Your task to perform on an android device: Go to sound settings Image 0: 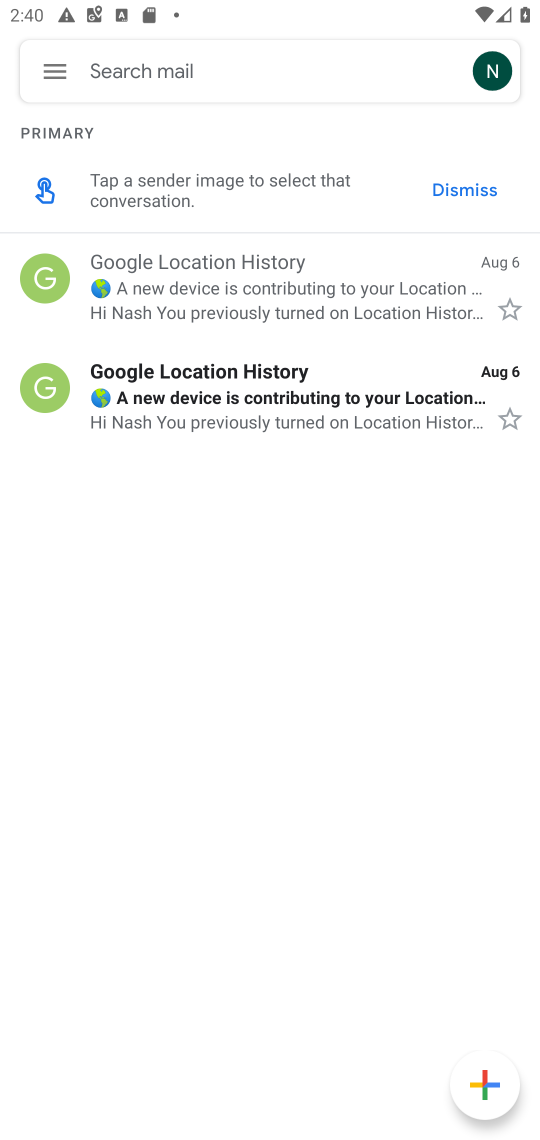
Step 0: press home button
Your task to perform on an android device: Go to sound settings Image 1: 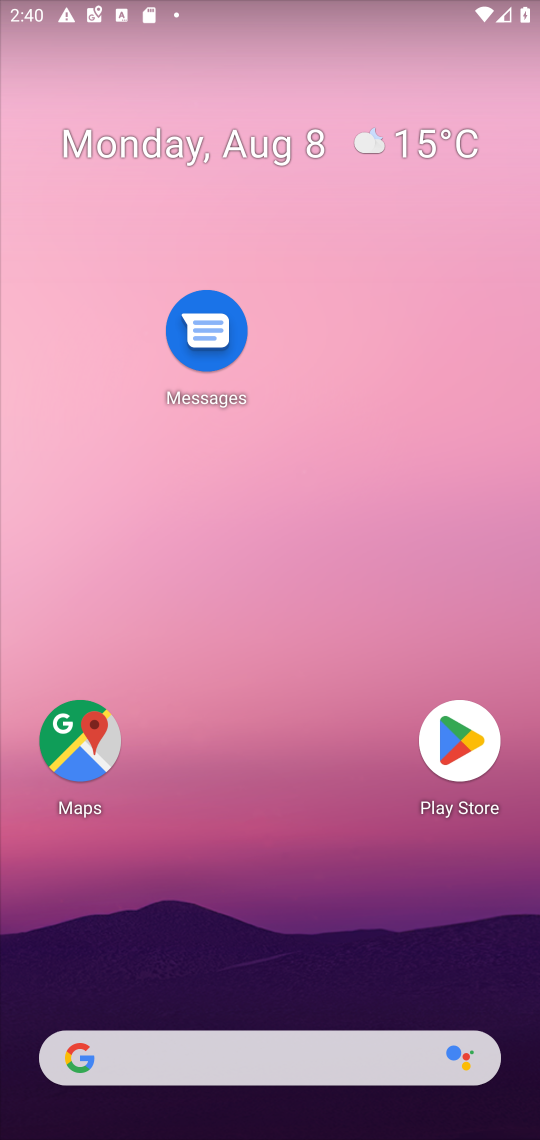
Step 1: drag from (309, 1044) to (314, 244)
Your task to perform on an android device: Go to sound settings Image 2: 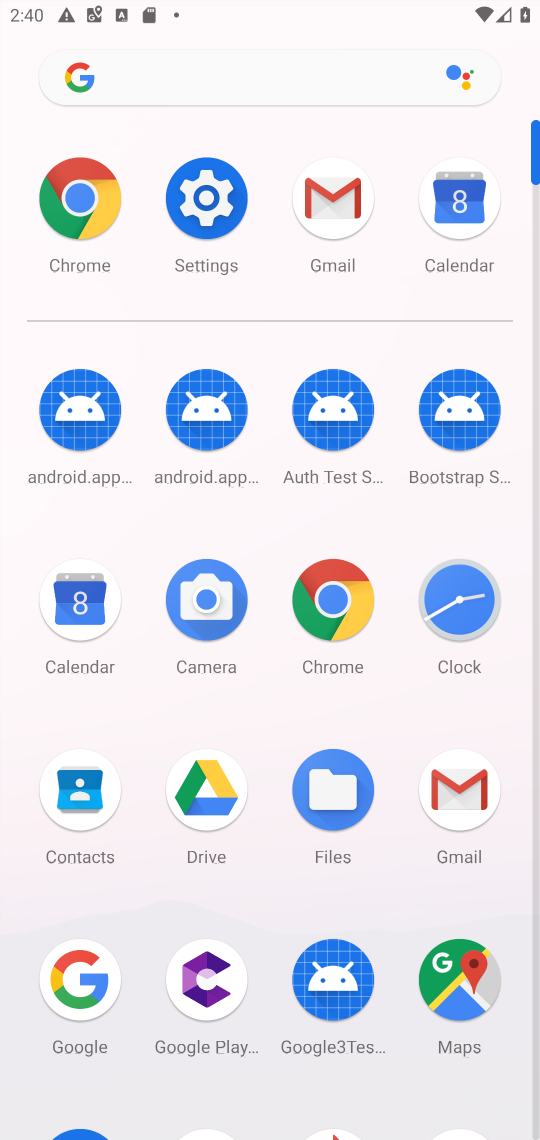
Step 2: click (225, 192)
Your task to perform on an android device: Go to sound settings Image 3: 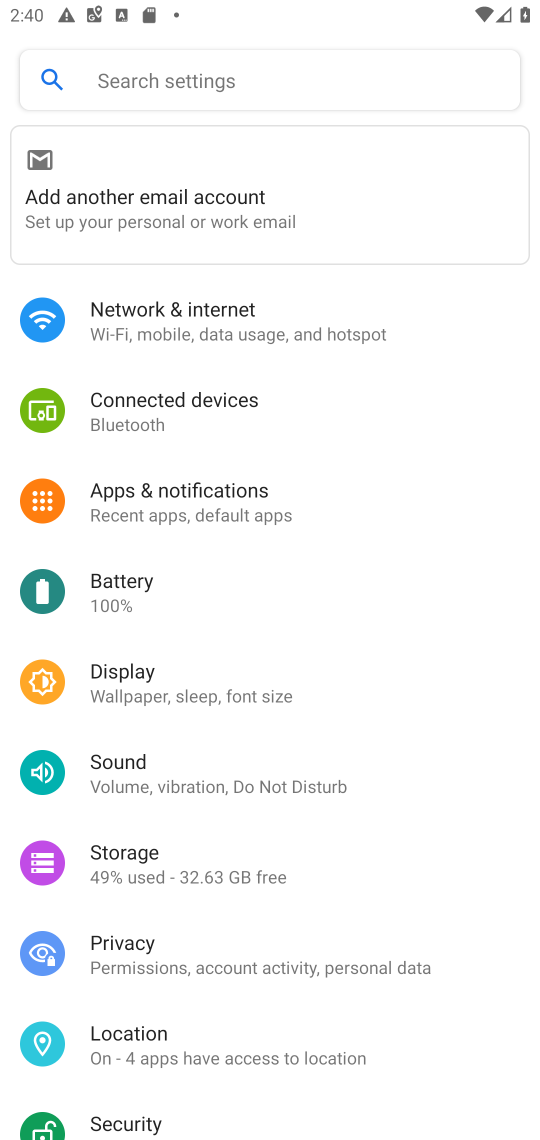
Step 3: click (141, 773)
Your task to perform on an android device: Go to sound settings Image 4: 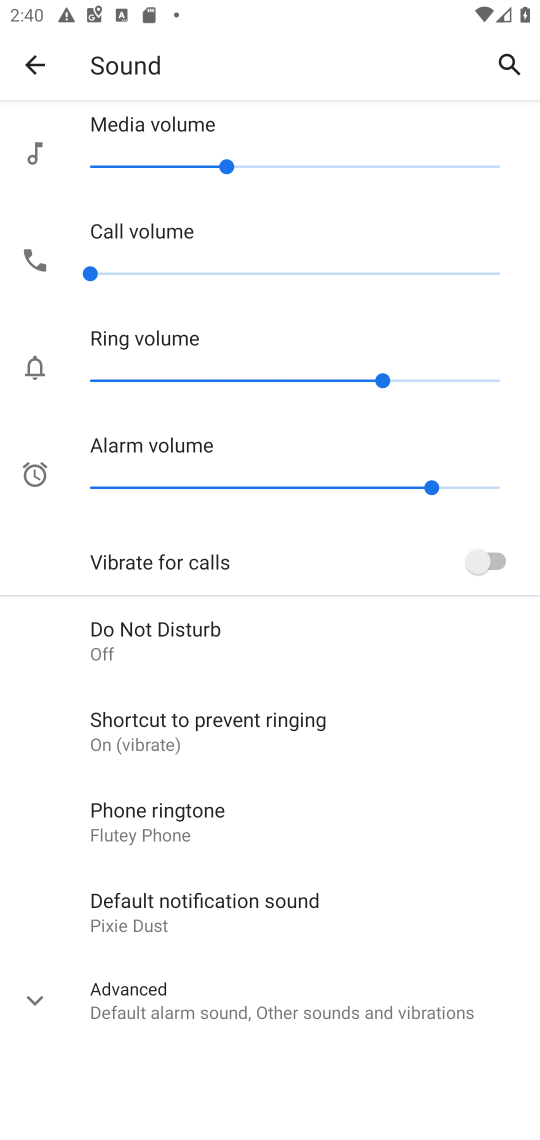
Step 4: task complete